Your task to perform on an android device: What's a good restaurant in San Francisco? Image 0: 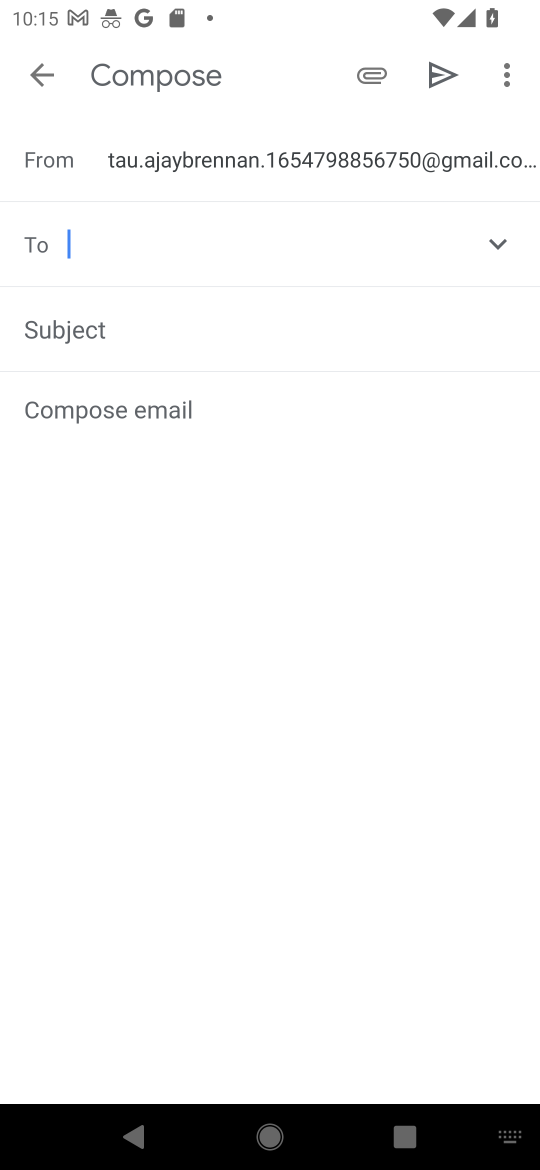
Step 0: press home button
Your task to perform on an android device: What's a good restaurant in San Francisco? Image 1: 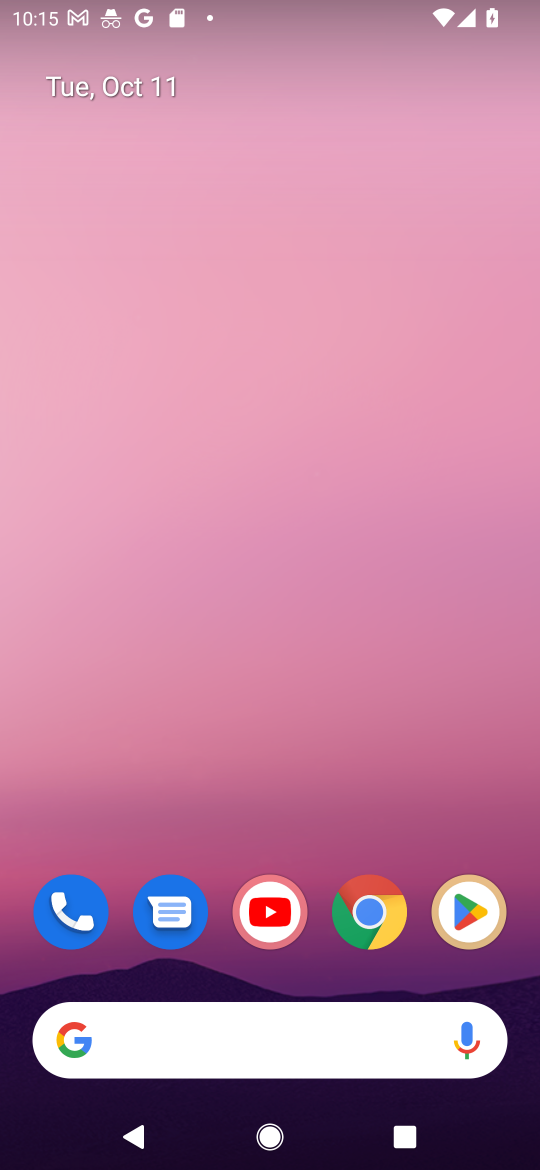
Step 1: click (366, 916)
Your task to perform on an android device: What's a good restaurant in San Francisco? Image 2: 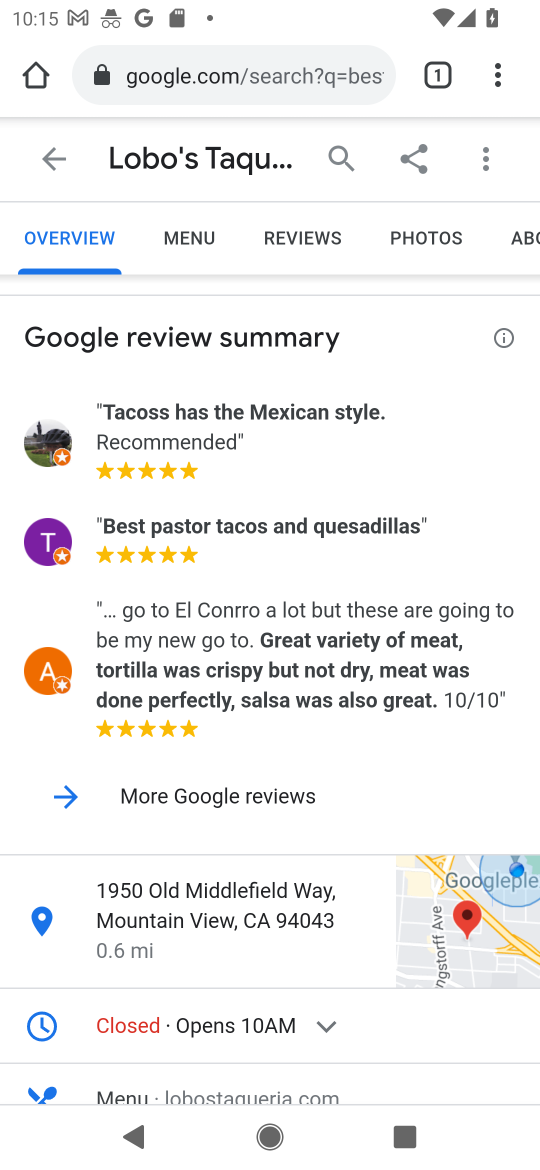
Step 2: click (212, 50)
Your task to perform on an android device: What's a good restaurant in San Francisco? Image 3: 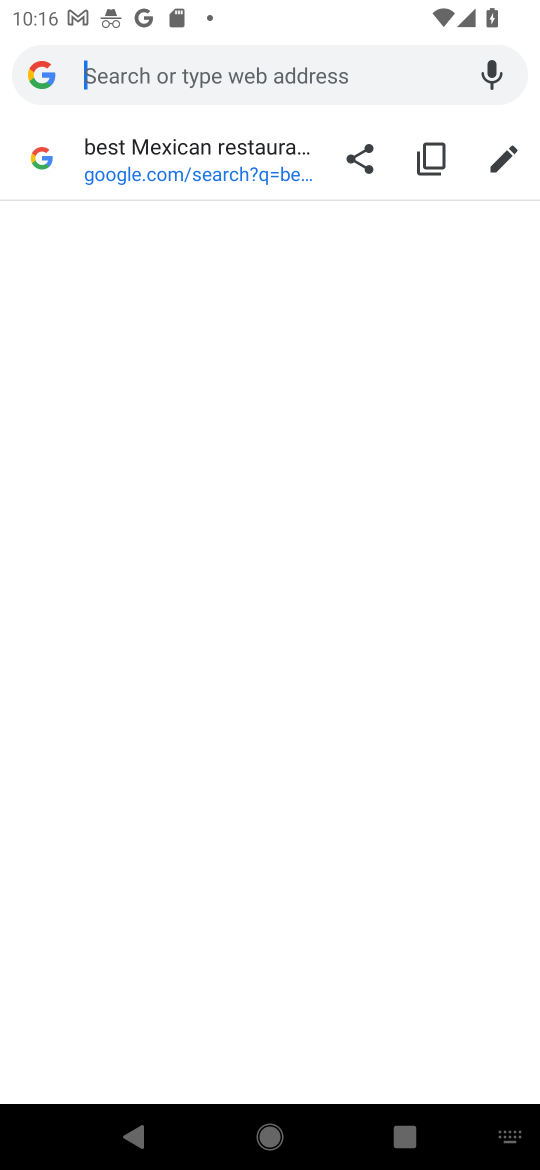
Step 3: type "good restaurant in San Francisco"
Your task to perform on an android device: What's a good restaurant in San Francisco? Image 4: 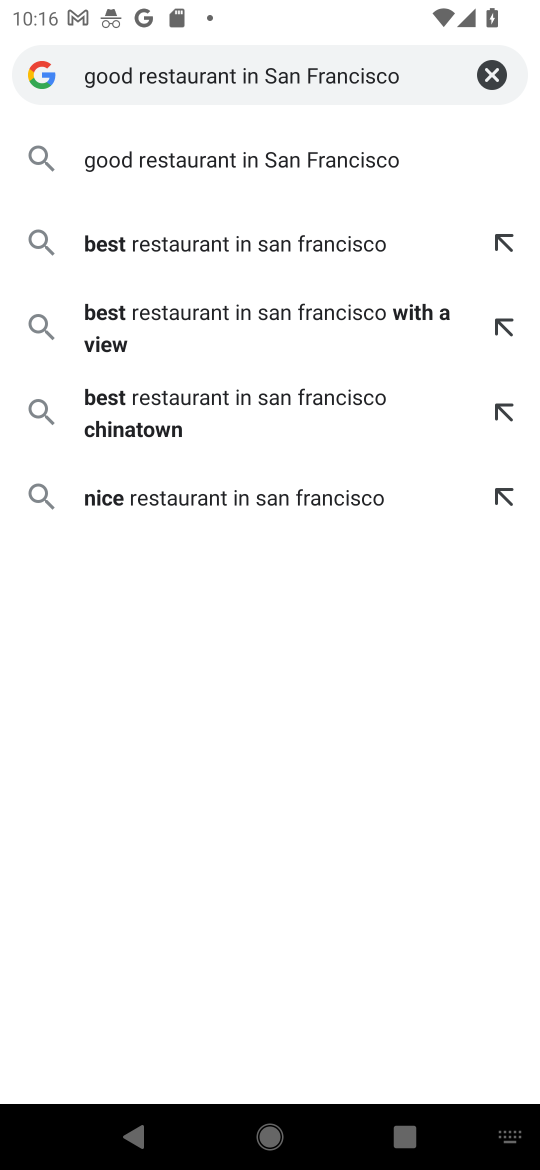
Step 4: click (152, 157)
Your task to perform on an android device: What's a good restaurant in San Francisco? Image 5: 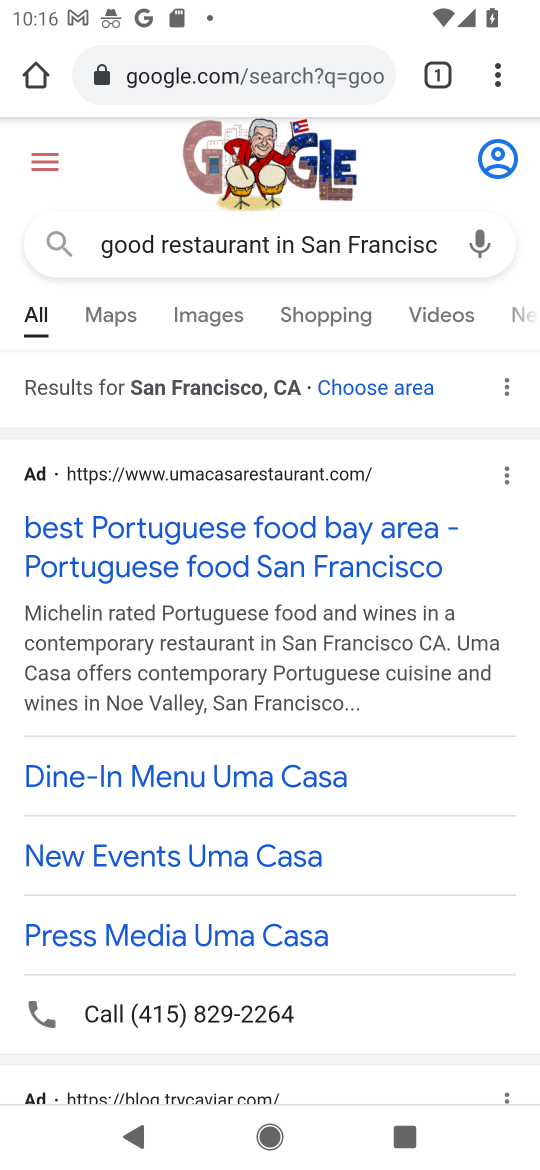
Step 5: drag from (353, 714) to (344, 475)
Your task to perform on an android device: What's a good restaurant in San Francisco? Image 6: 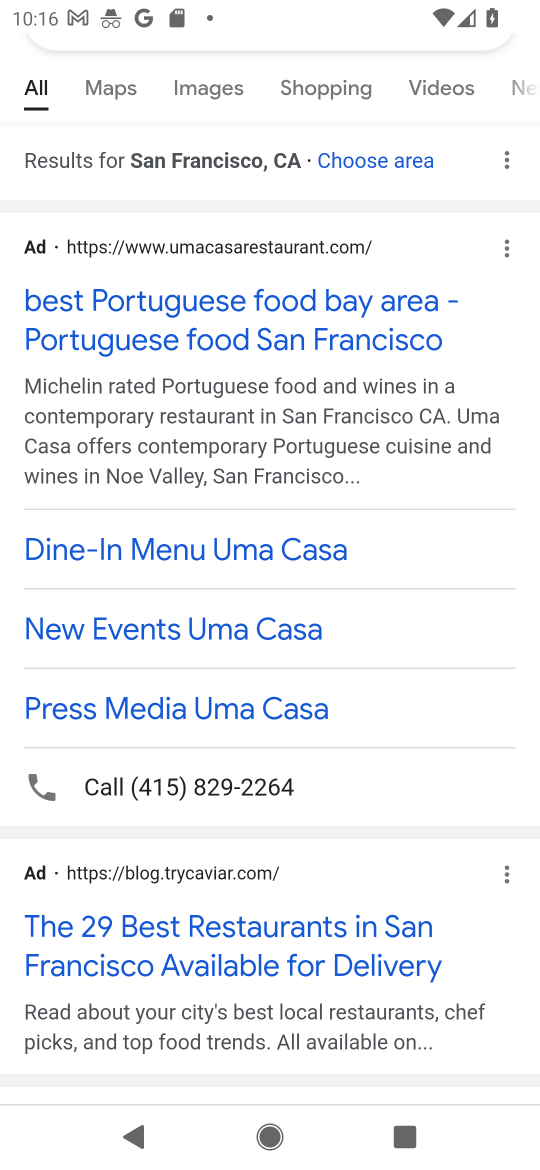
Step 6: drag from (380, 833) to (340, 287)
Your task to perform on an android device: What's a good restaurant in San Francisco? Image 7: 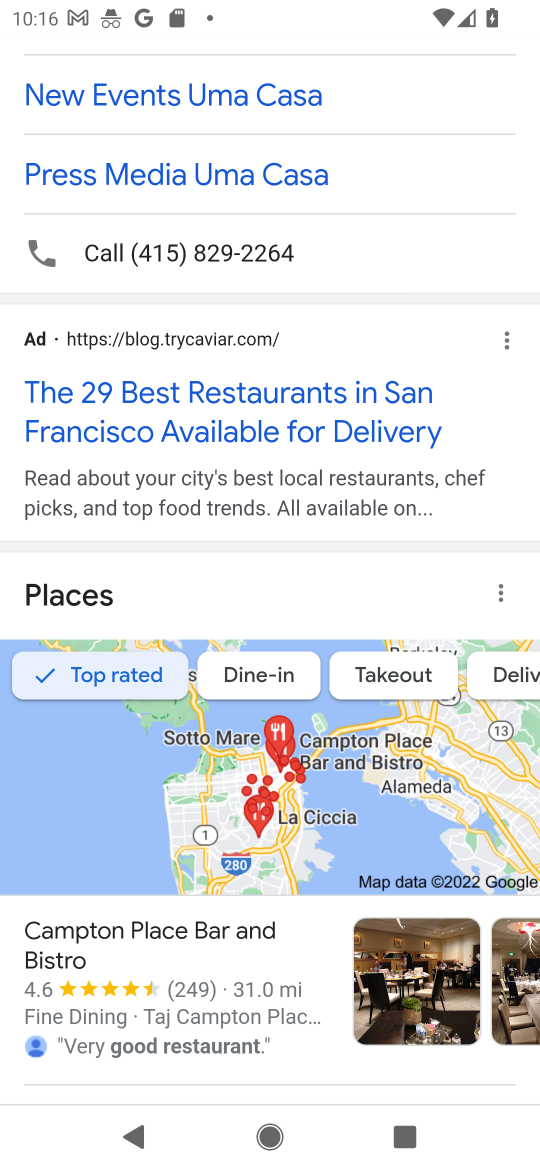
Step 7: click (174, 405)
Your task to perform on an android device: What's a good restaurant in San Francisco? Image 8: 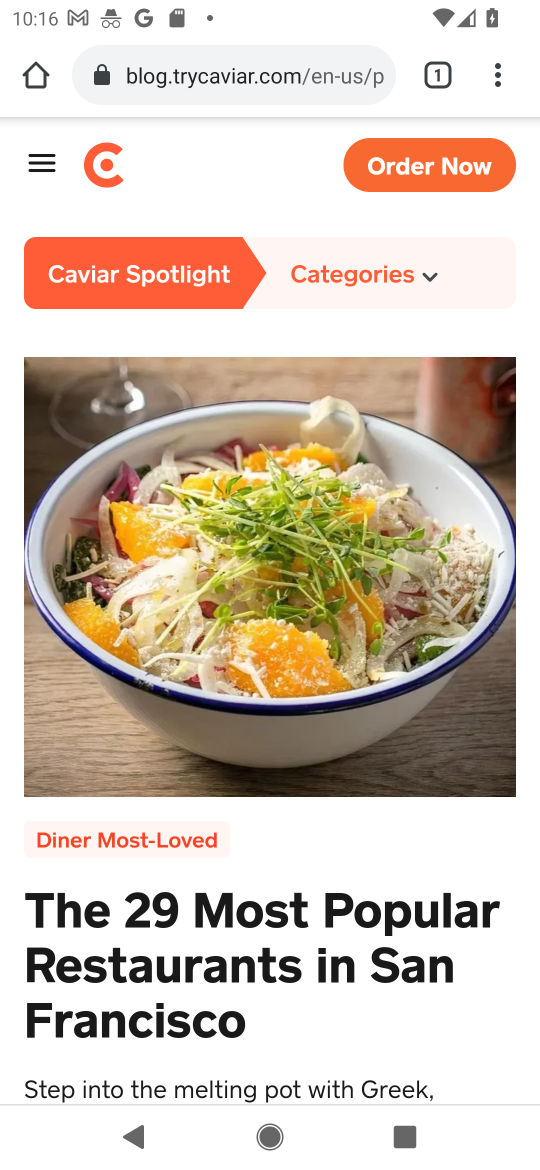
Step 8: task complete